Your task to perform on an android device: Open calendar and show me the third week of next month Image 0: 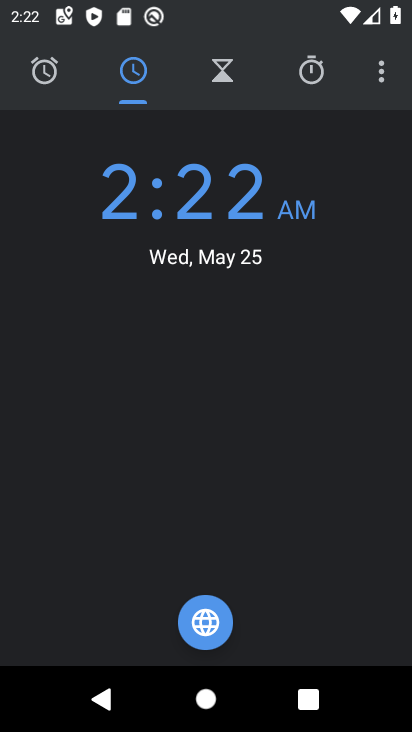
Step 0: press home button
Your task to perform on an android device: Open calendar and show me the third week of next month Image 1: 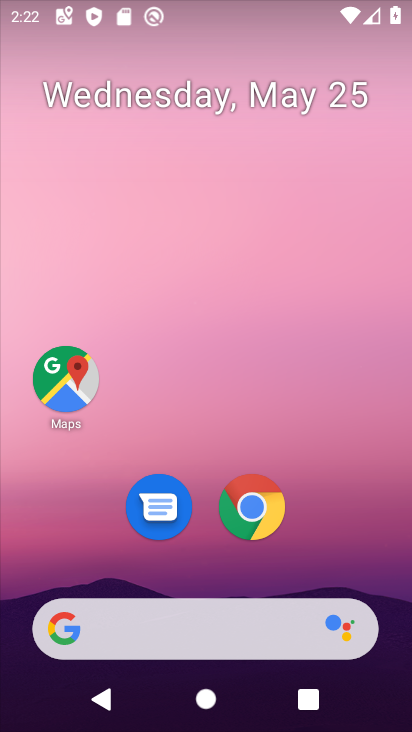
Step 1: drag from (193, 643) to (247, 216)
Your task to perform on an android device: Open calendar and show me the third week of next month Image 2: 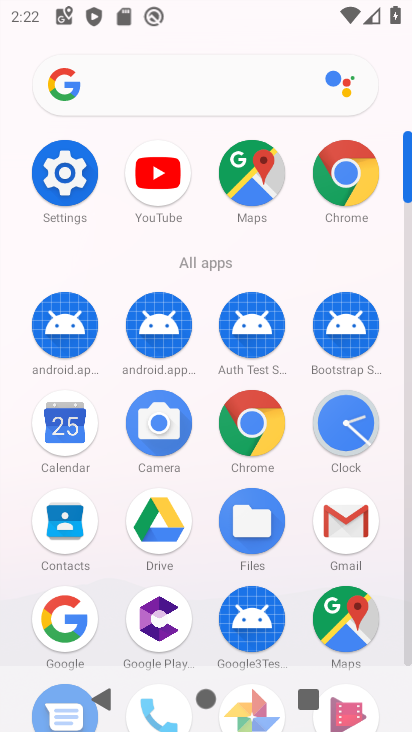
Step 2: click (85, 423)
Your task to perform on an android device: Open calendar and show me the third week of next month Image 3: 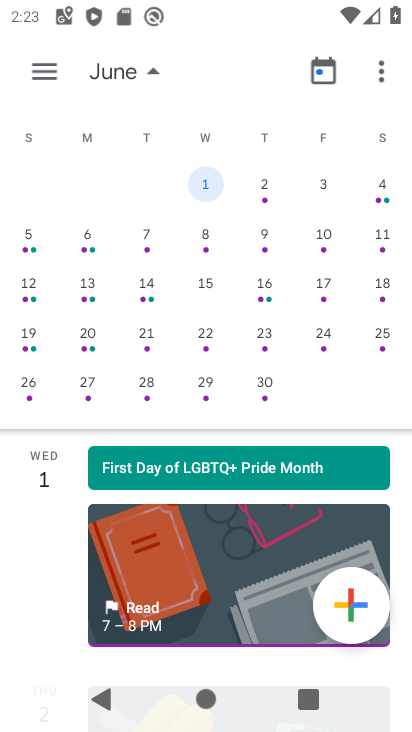
Step 3: click (35, 300)
Your task to perform on an android device: Open calendar and show me the third week of next month Image 4: 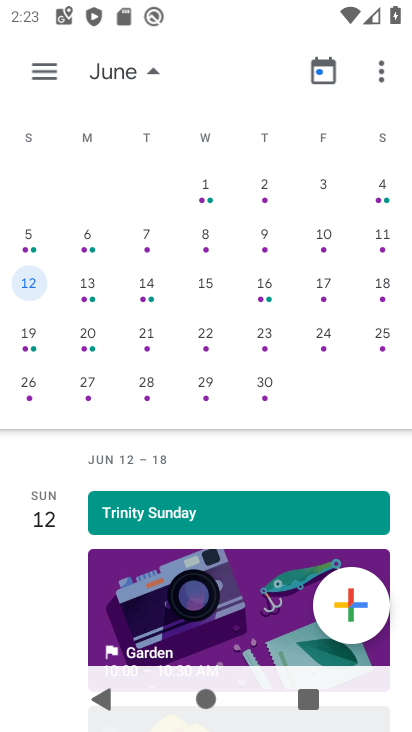
Step 4: task complete